Your task to perform on an android device: Open Wikipedia Image 0: 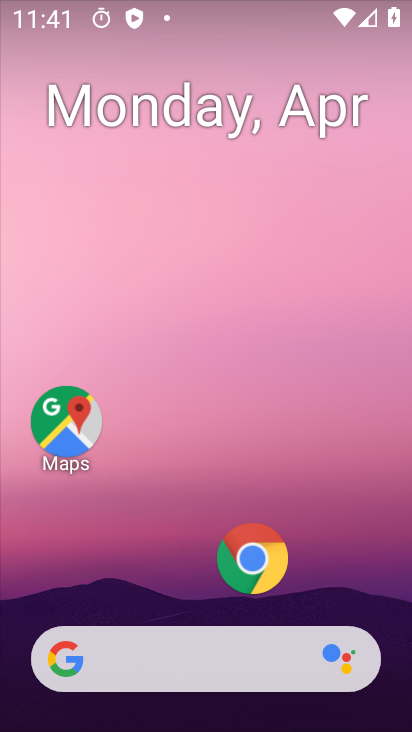
Step 0: drag from (181, 619) to (199, 140)
Your task to perform on an android device: Open Wikipedia Image 1: 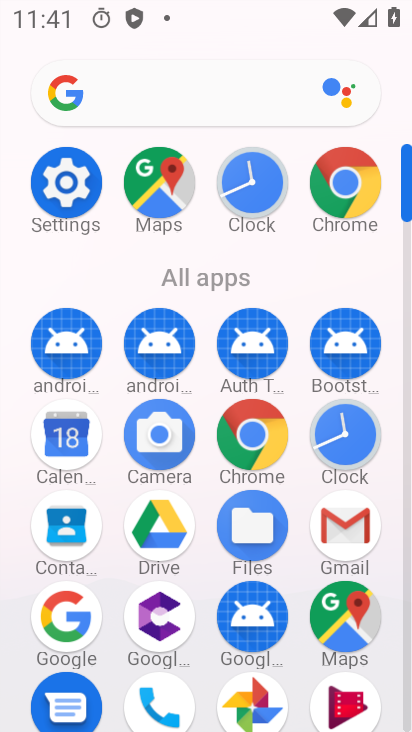
Step 1: click (340, 184)
Your task to perform on an android device: Open Wikipedia Image 2: 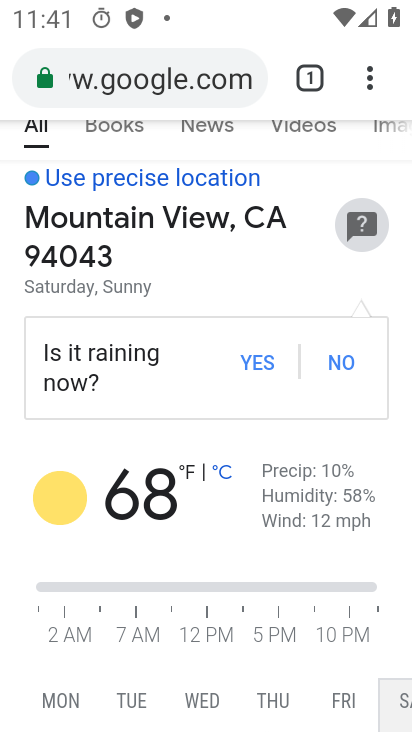
Step 2: click (166, 79)
Your task to perform on an android device: Open Wikipedia Image 3: 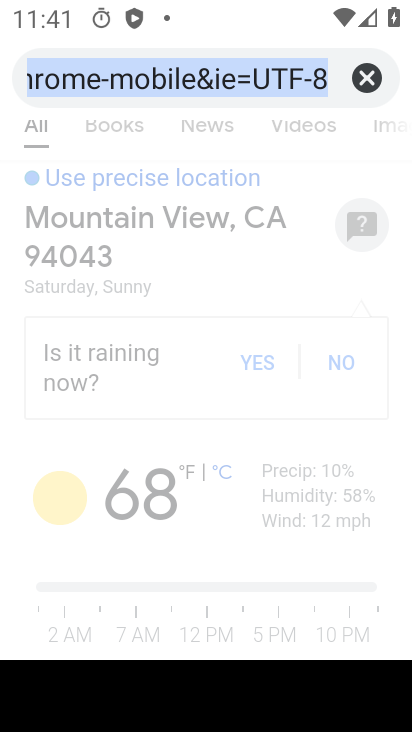
Step 3: type "wikipedia"
Your task to perform on an android device: Open Wikipedia Image 4: 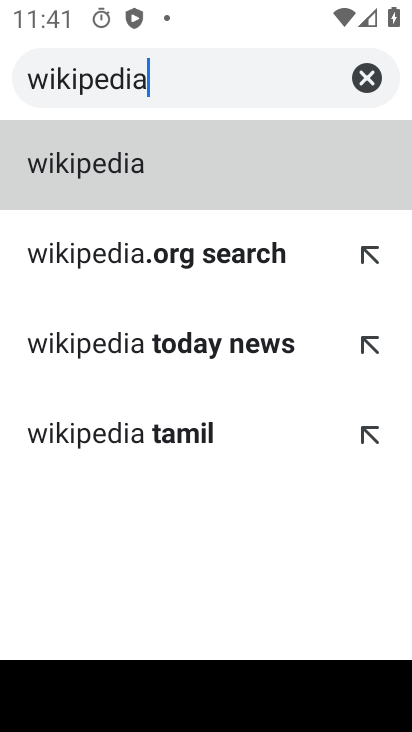
Step 4: click (101, 186)
Your task to perform on an android device: Open Wikipedia Image 5: 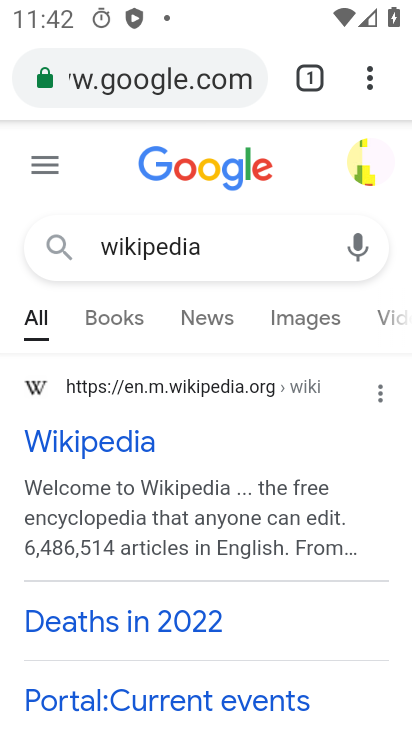
Step 5: task complete